Your task to perform on an android device: toggle improve location accuracy Image 0: 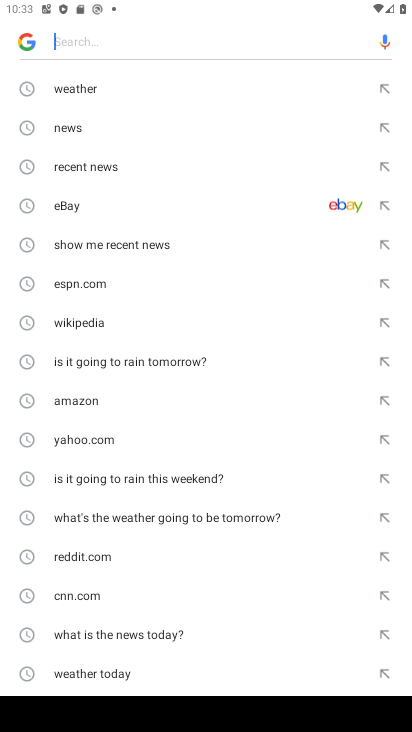
Step 0: press home button
Your task to perform on an android device: toggle improve location accuracy Image 1: 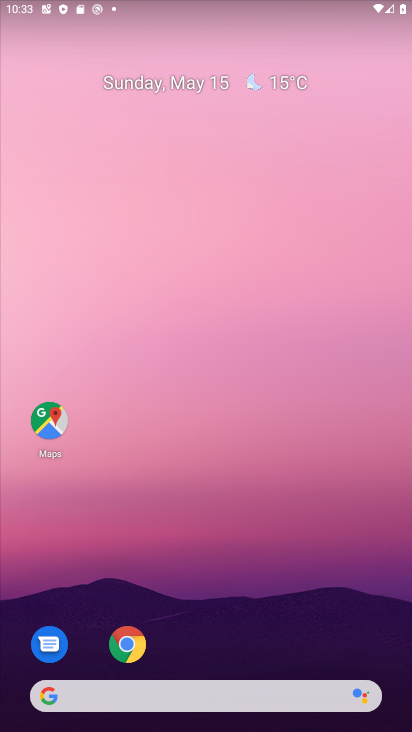
Step 1: drag from (171, 686) to (214, 180)
Your task to perform on an android device: toggle improve location accuracy Image 2: 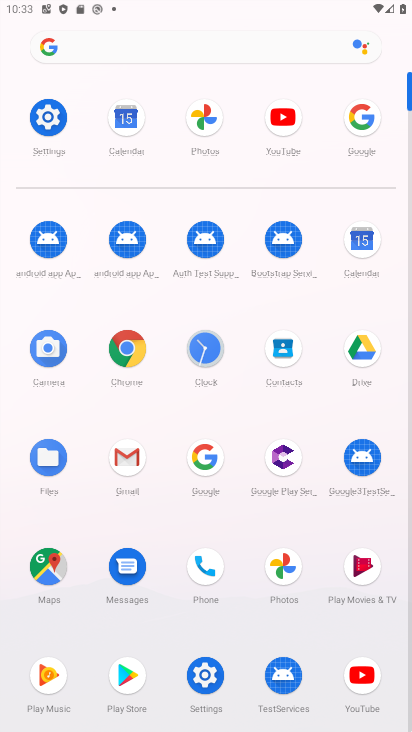
Step 2: click (55, 118)
Your task to perform on an android device: toggle improve location accuracy Image 3: 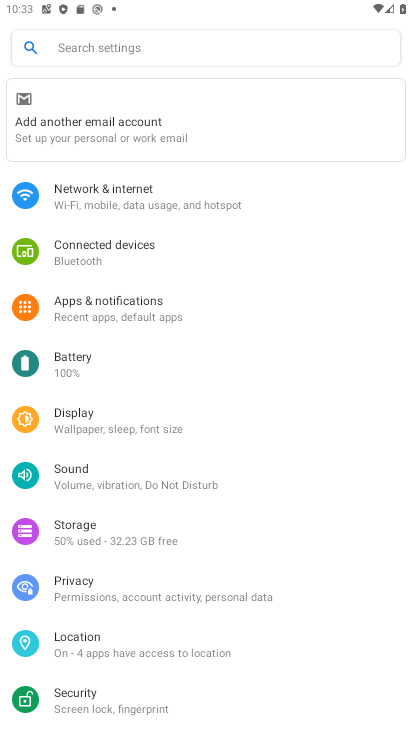
Step 3: click (73, 649)
Your task to perform on an android device: toggle improve location accuracy Image 4: 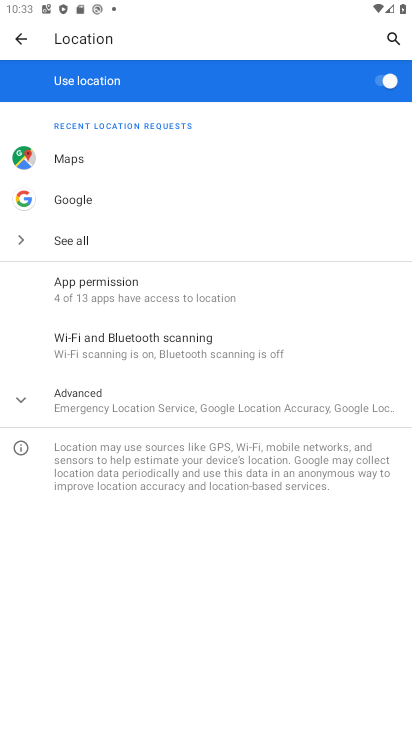
Step 4: click (75, 402)
Your task to perform on an android device: toggle improve location accuracy Image 5: 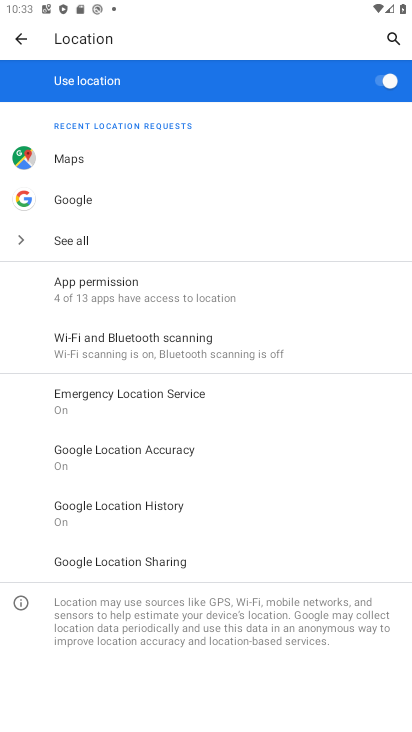
Step 5: click (127, 450)
Your task to perform on an android device: toggle improve location accuracy Image 6: 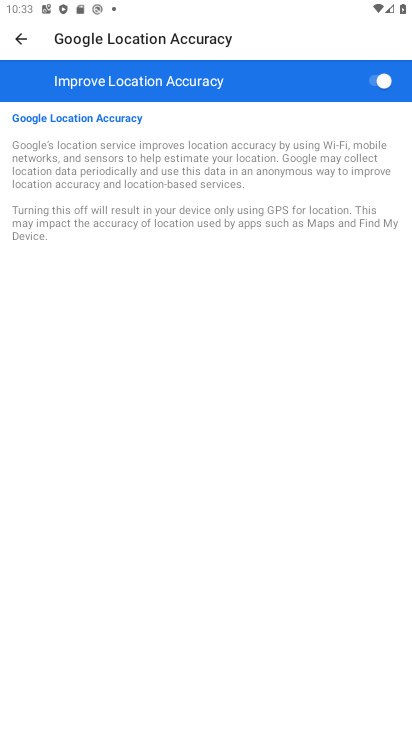
Step 6: click (384, 83)
Your task to perform on an android device: toggle improve location accuracy Image 7: 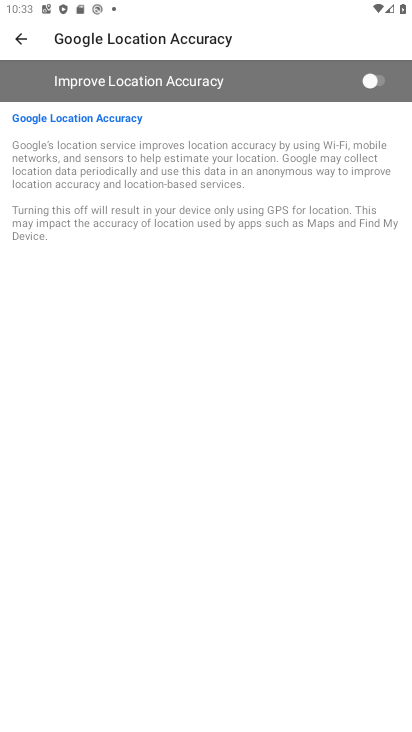
Step 7: task complete